Your task to perform on an android device: open chrome and create a bookmark for the current page Image 0: 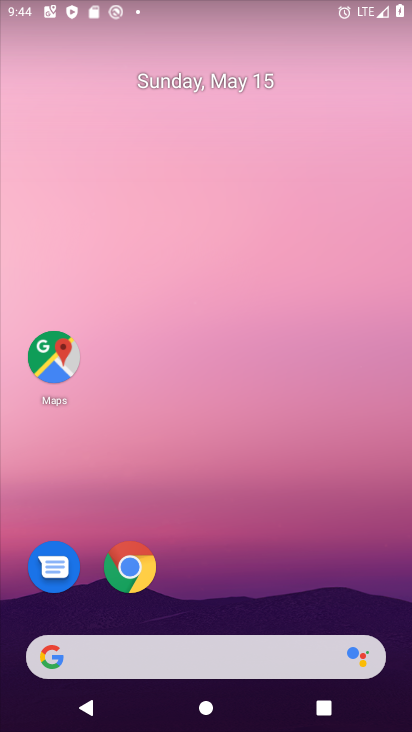
Step 0: click (136, 572)
Your task to perform on an android device: open chrome and create a bookmark for the current page Image 1: 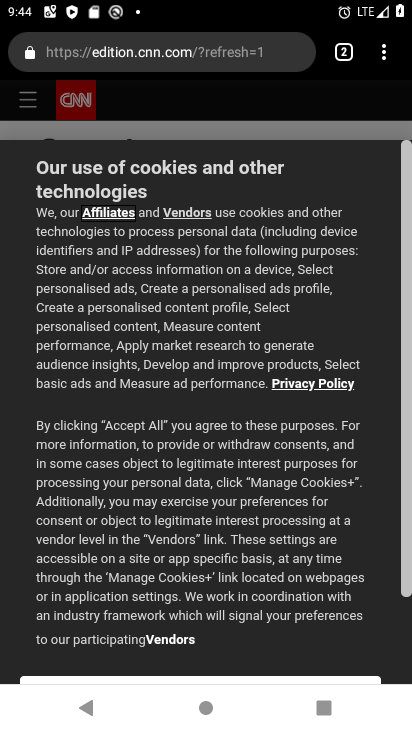
Step 1: click (382, 53)
Your task to perform on an android device: open chrome and create a bookmark for the current page Image 2: 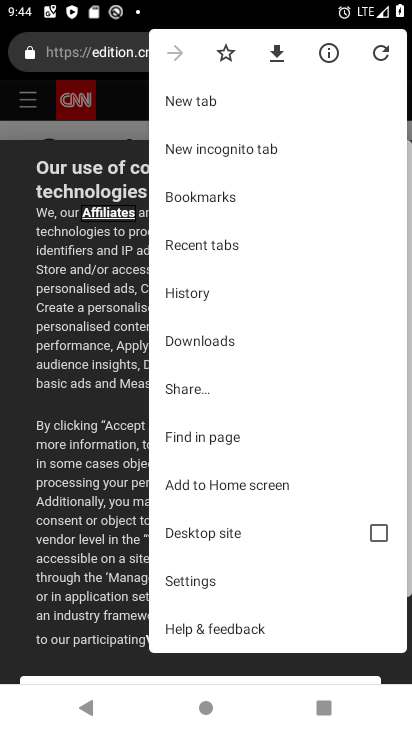
Step 2: click (225, 45)
Your task to perform on an android device: open chrome and create a bookmark for the current page Image 3: 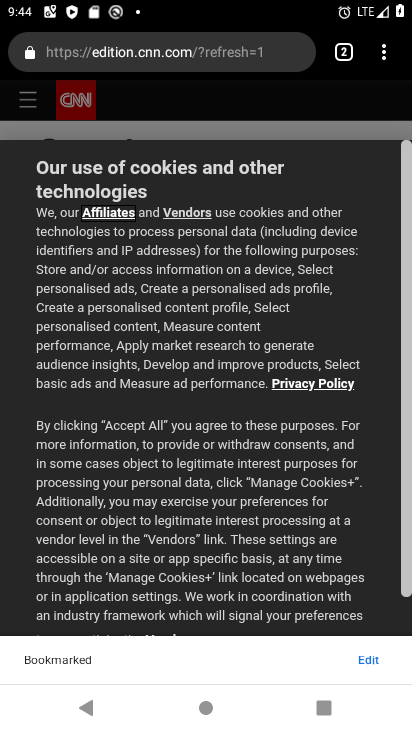
Step 3: task complete